Your task to perform on an android device: toggle pop-ups in chrome Image 0: 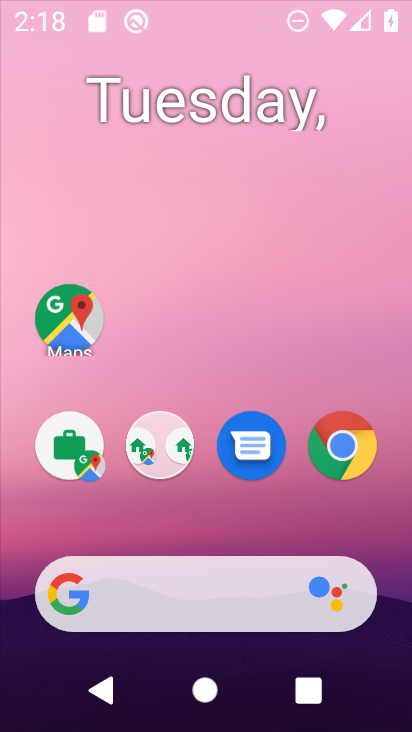
Step 0: click (316, 164)
Your task to perform on an android device: toggle pop-ups in chrome Image 1: 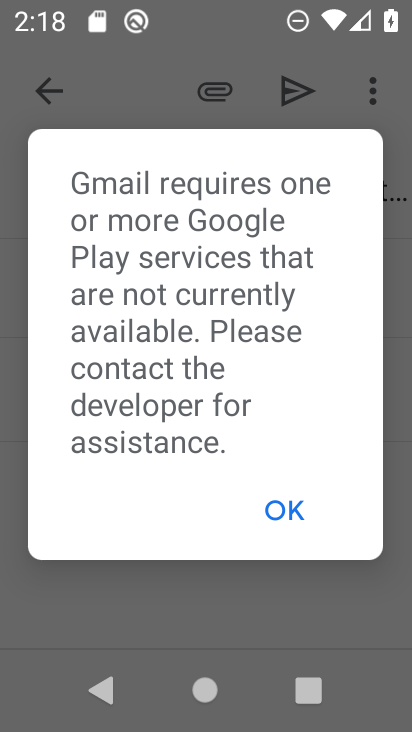
Step 1: press home button
Your task to perform on an android device: toggle pop-ups in chrome Image 2: 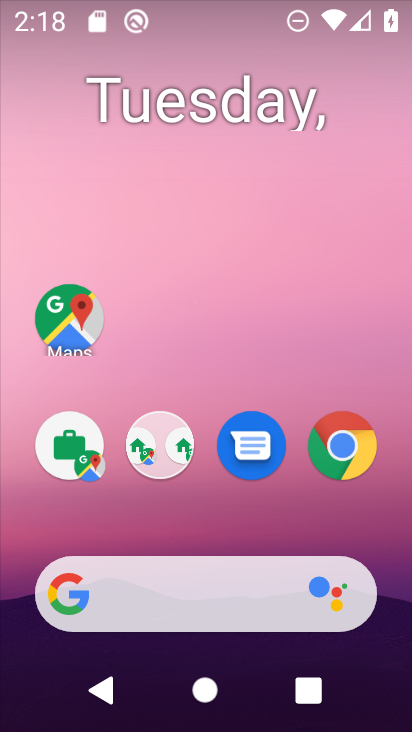
Step 2: click (362, 452)
Your task to perform on an android device: toggle pop-ups in chrome Image 3: 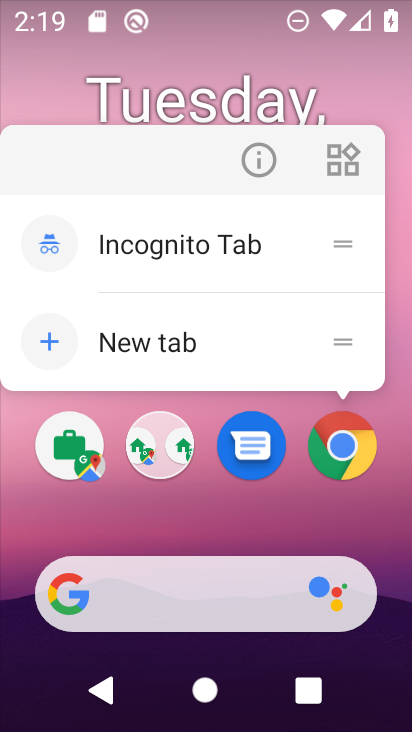
Step 3: click (257, 163)
Your task to perform on an android device: toggle pop-ups in chrome Image 4: 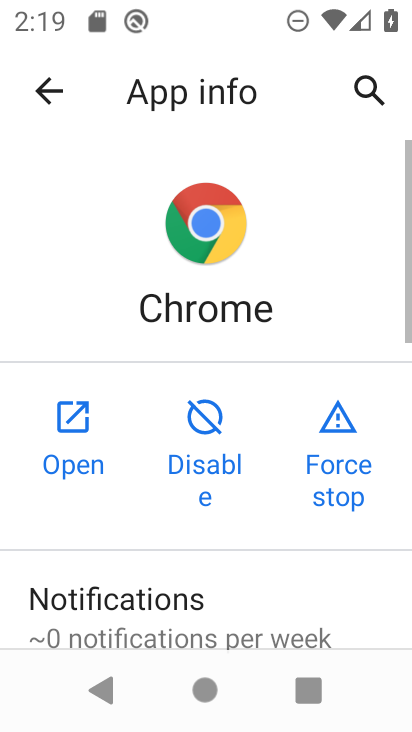
Step 4: click (67, 425)
Your task to perform on an android device: toggle pop-ups in chrome Image 5: 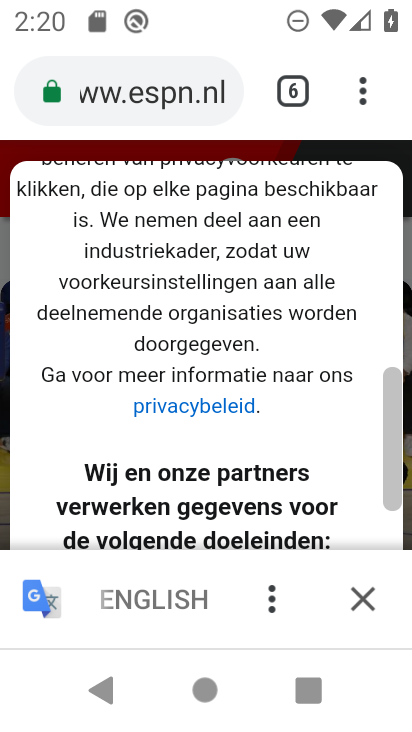
Step 5: click (362, 107)
Your task to perform on an android device: toggle pop-ups in chrome Image 6: 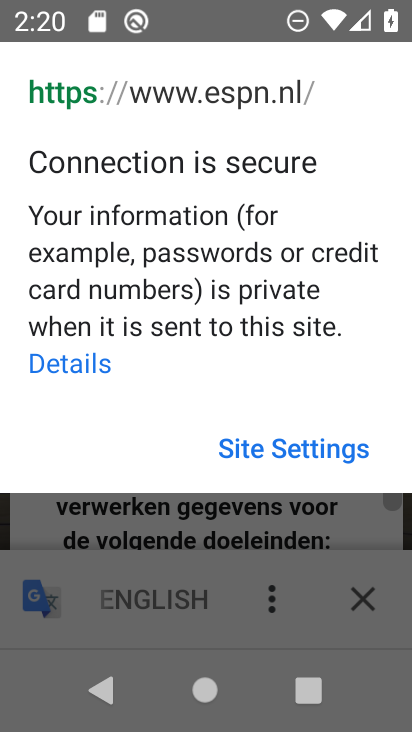
Step 6: task complete